Your task to perform on an android device: Open Youtube and go to the subscriptions tab Image 0: 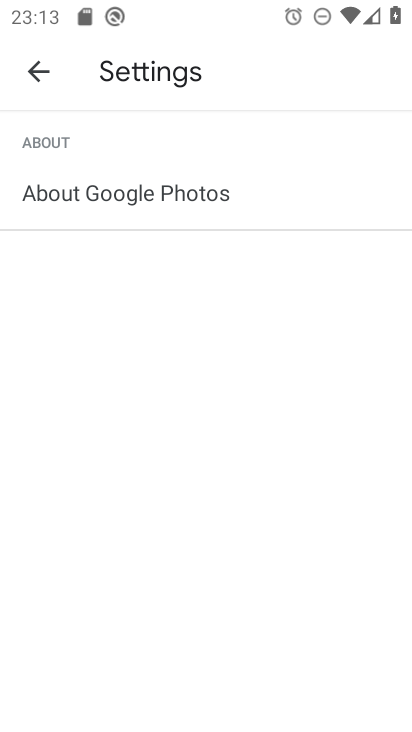
Step 0: press home button
Your task to perform on an android device: Open Youtube and go to the subscriptions tab Image 1: 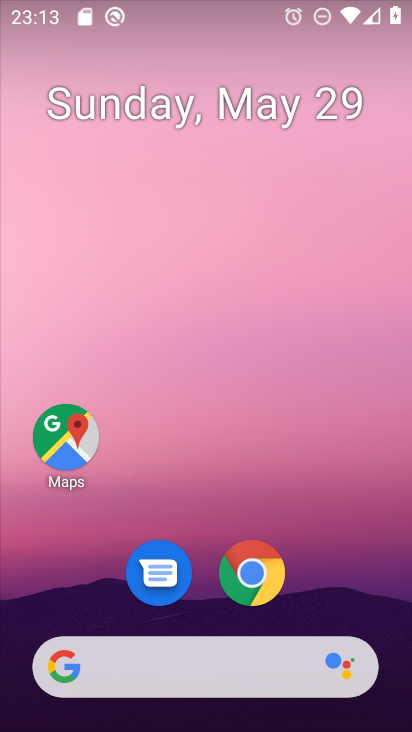
Step 1: drag from (229, 486) to (243, 28)
Your task to perform on an android device: Open Youtube and go to the subscriptions tab Image 2: 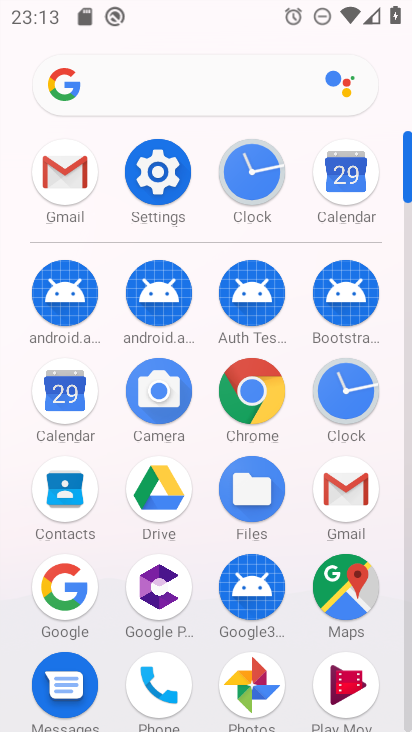
Step 2: drag from (206, 555) to (192, 180)
Your task to perform on an android device: Open Youtube and go to the subscriptions tab Image 3: 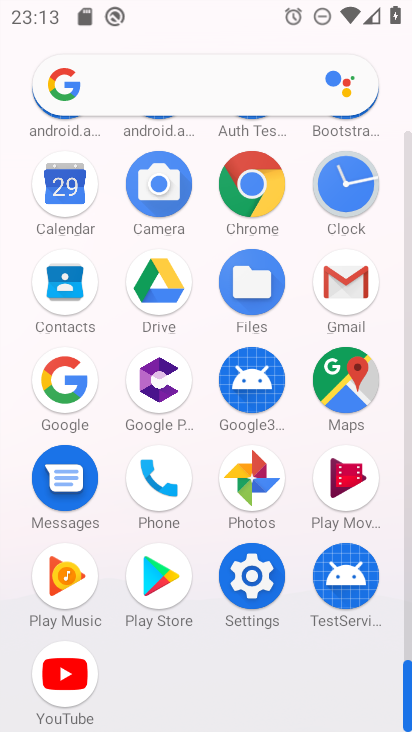
Step 3: click (68, 656)
Your task to perform on an android device: Open Youtube and go to the subscriptions tab Image 4: 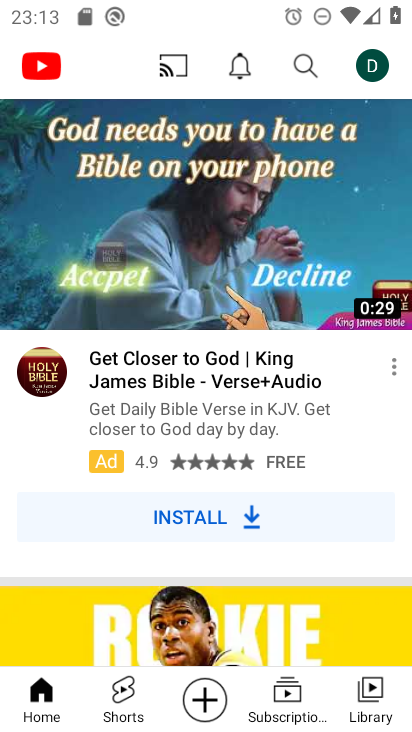
Step 4: click (288, 698)
Your task to perform on an android device: Open Youtube and go to the subscriptions tab Image 5: 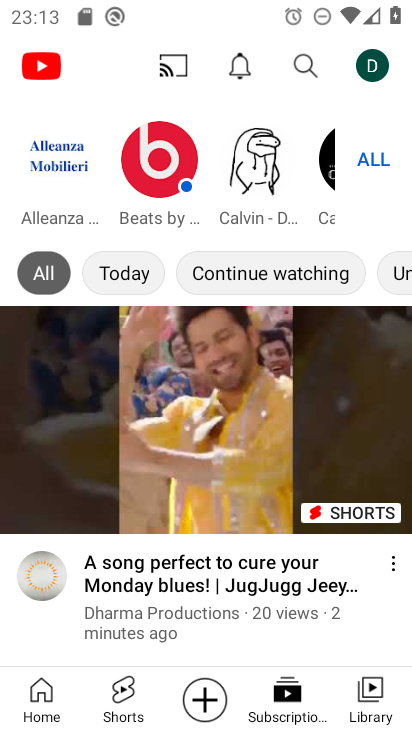
Step 5: task complete